Your task to perform on an android device: What's the weather going to be tomorrow? Image 0: 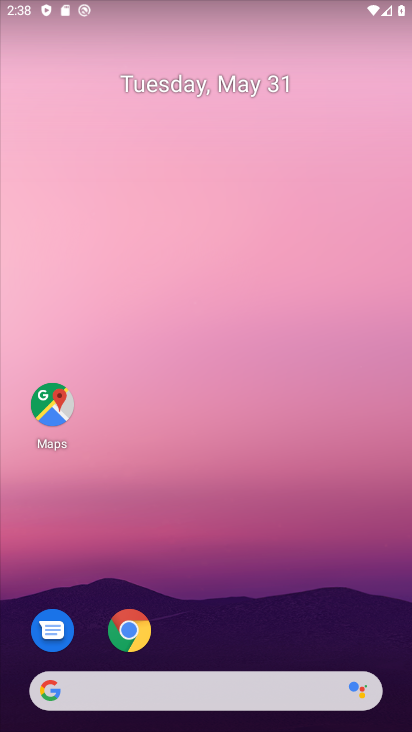
Step 0: click (154, 694)
Your task to perform on an android device: What's the weather going to be tomorrow? Image 1: 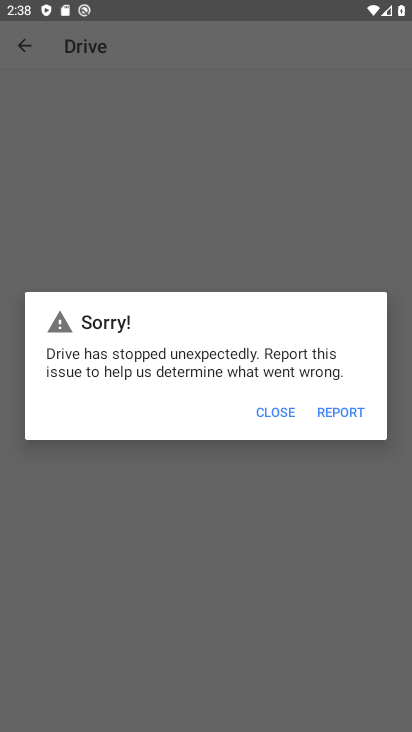
Step 1: press home button
Your task to perform on an android device: What's the weather going to be tomorrow? Image 2: 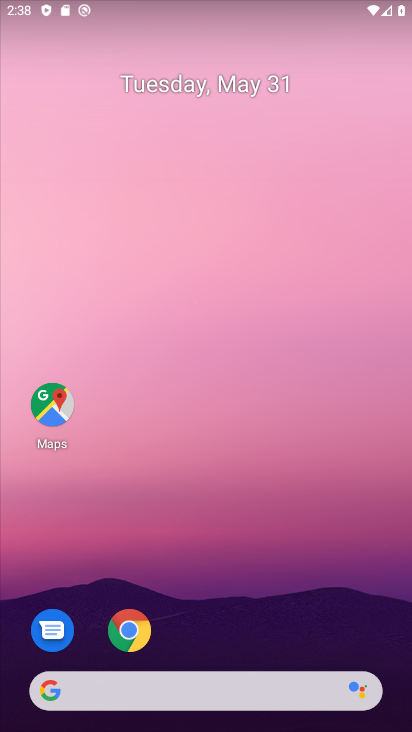
Step 2: click (58, 563)
Your task to perform on an android device: What's the weather going to be tomorrow? Image 3: 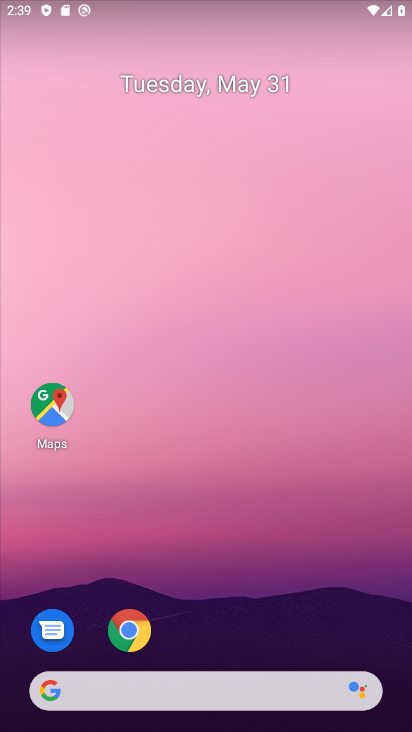
Step 3: click (173, 696)
Your task to perform on an android device: What's the weather going to be tomorrow? Image 4: 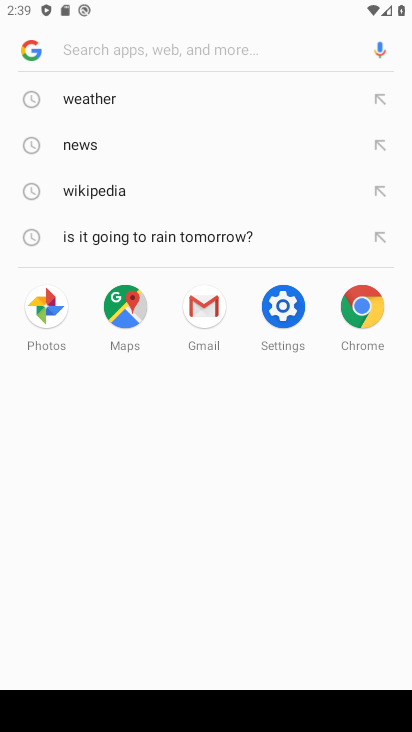
Step 4: click (139, 106)
Your task to perform on an android device: What's the weather going to be tomorrow? Image 5: 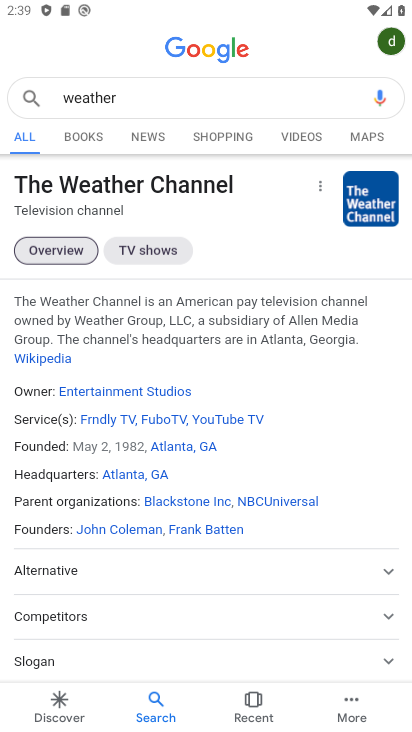
Step 5: drag from (244, 440) to (261, 149)
Your task to perform on an android device: What's the weather going to be tomorrow? Image 6: 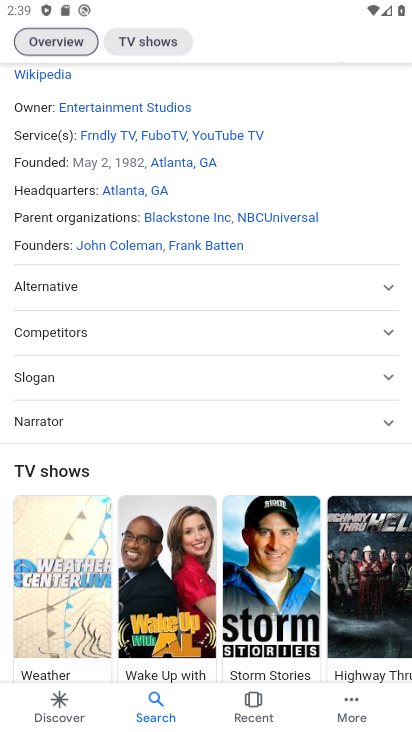
Step 6: drag from (152, 516) to (200, 169)
Your task to perform on an android device: What's the weather going to be tomorrow? Image 7: 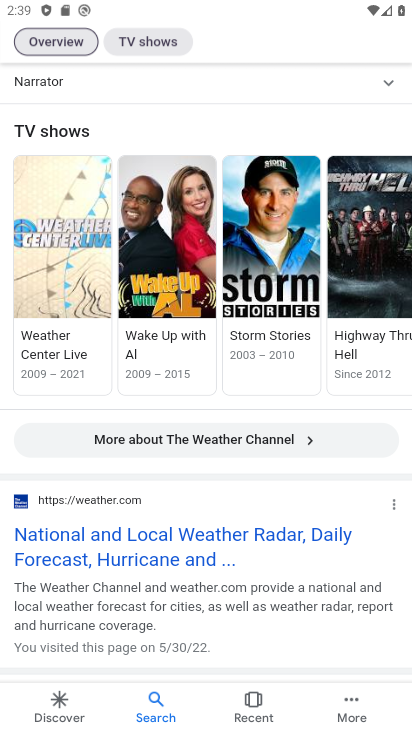
Step 7: click (58, 544)
Your task to perform on an android device: What's the weather going to be tomorrow? Image 8: 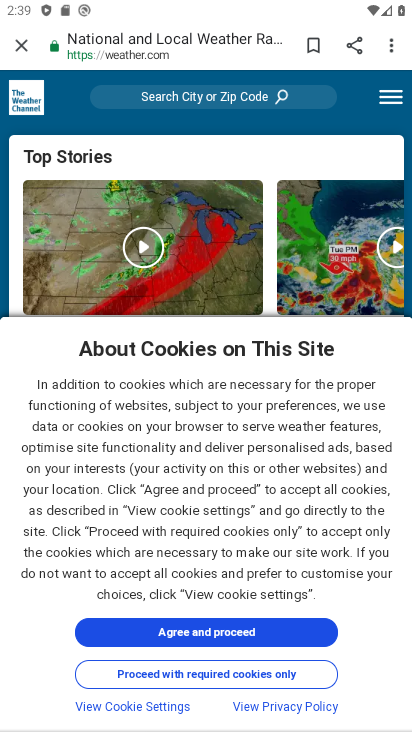
Step 8: click (210, 719)
Your task to perform on an android device: What's the weather going to be tomorrow? Image 9: 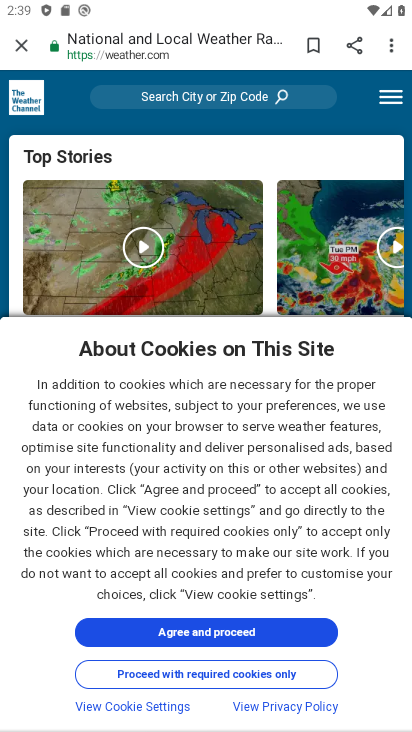
Step 9: click (175, 642)
Your task to perform on an android device: What's the weather going to be tomorrow? Image 10: 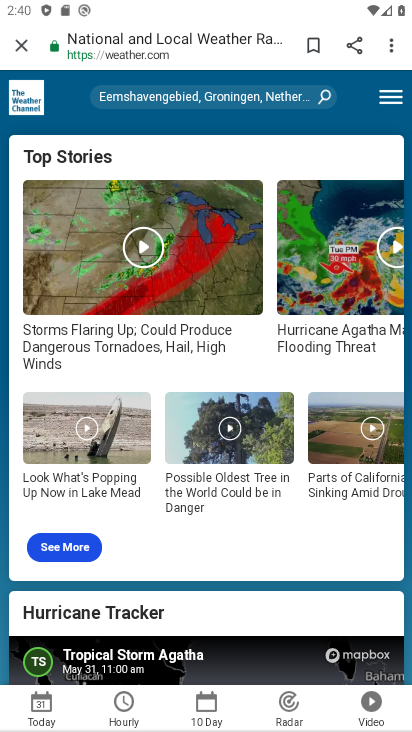
Step 10: click (214, 704)
Your task to perform on an android device: What's the weather going to be tomorrow? Image 11: 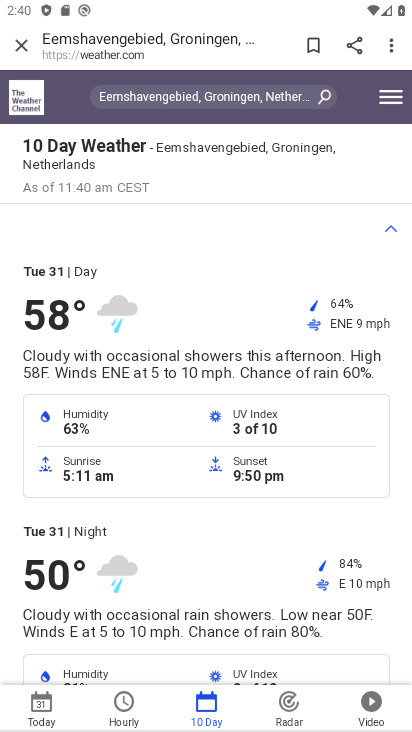
Step 11: task complete